Your task to perform on an android device: toggle location history Image 0: 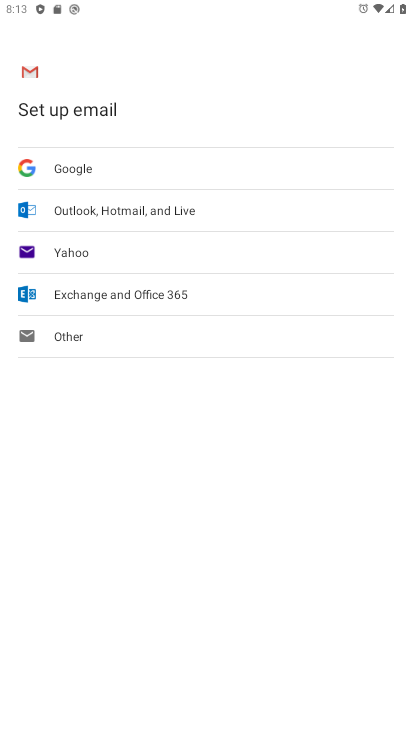
Step 0: press home button
Your task to perform on an android device: toggle location history Image 1: 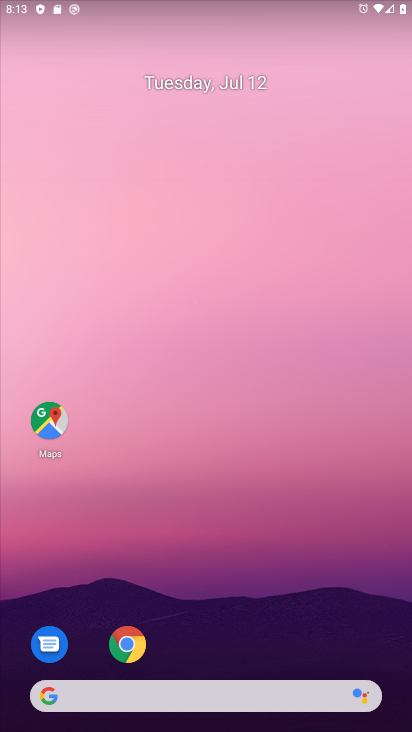
Step 1: drag from (24, 717) to (201, 263)
Your task to perform on an android device: toggle location history Image 2: 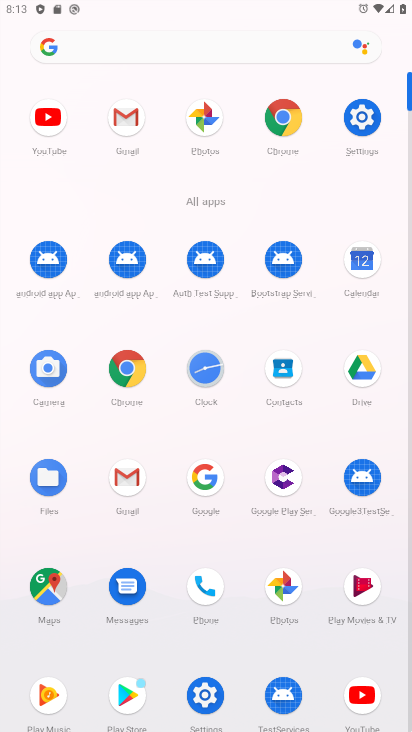
Step 2: click (37, 586)
Your task to perform on an android device: toggle location history Image 3: 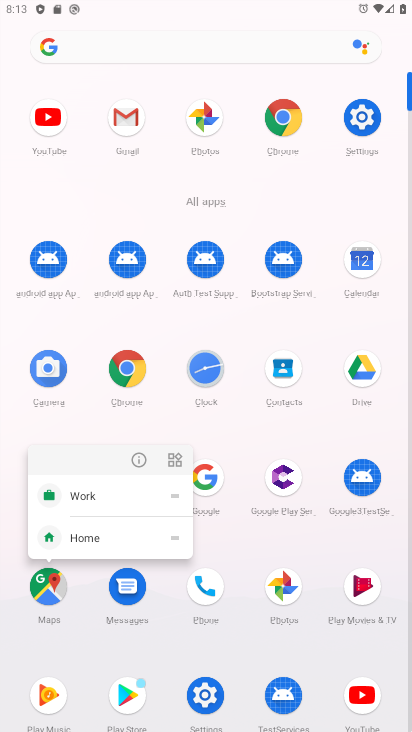
Step 3: click (198, 696)
Your task to perform on an android device: toggle location history Image 4: 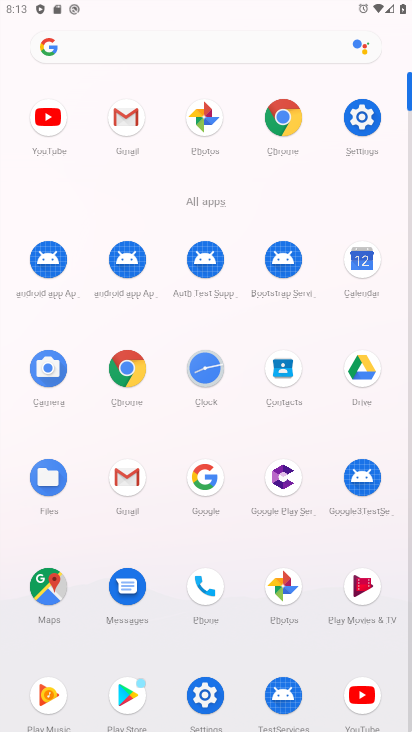
Step 4: task complete